Your task to perform on an android device: Go to Yahoo.com Image 0: 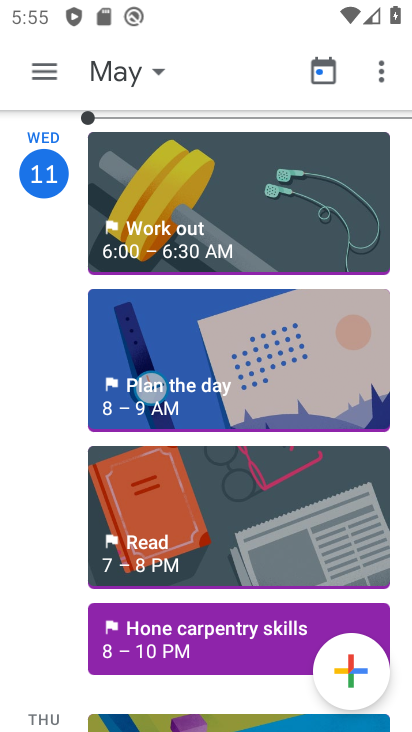
Step 0: press home button
Your task to perform on an android device: Go to Yahoo.com Image 1: 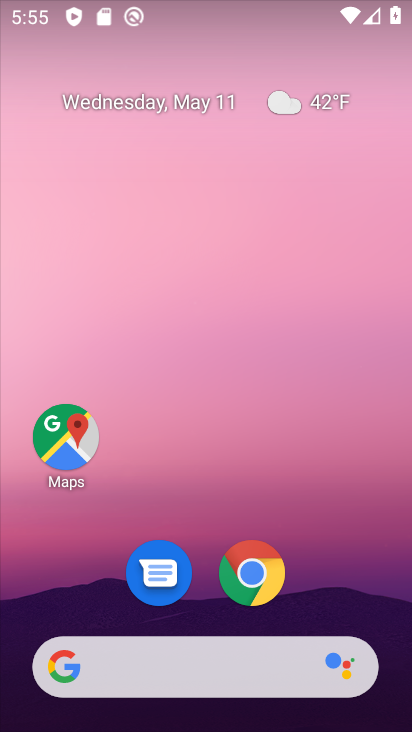
Step 1: click (238, 593)
Your task to perform on an android device: Go to Yahoo.com Image 2: 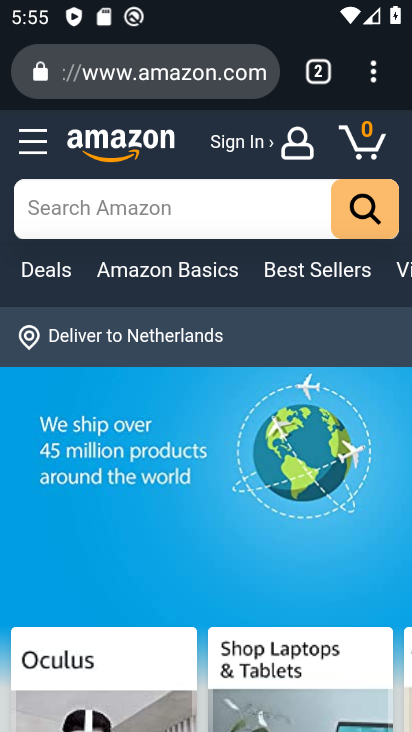
Step 2: press back button
Your task to perform on an android device: Go to Yahoo.com Image 3: 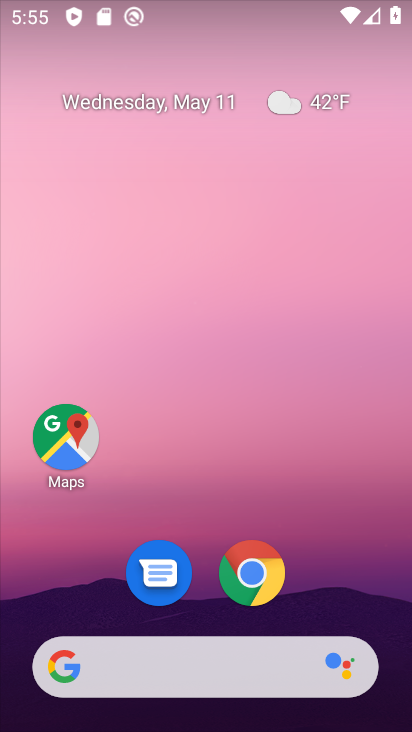
Step 3: click (242, 585)
Your task to perform on an android device: Go to Yahoo.com Image 4: 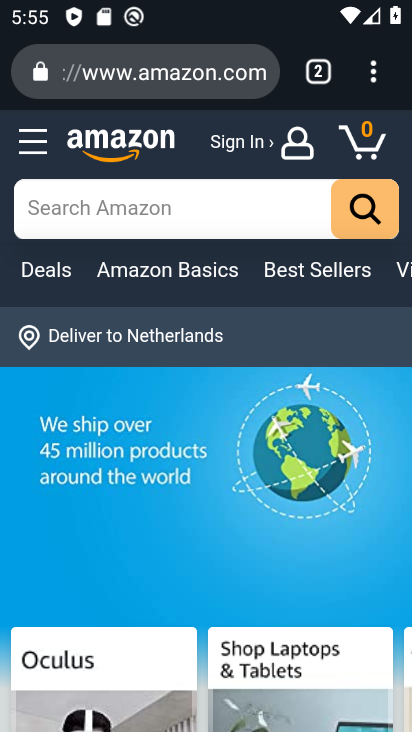
Step 4: click (320, 81)
Your task to perform on an android device: Go to Yahoo.com Image 5: 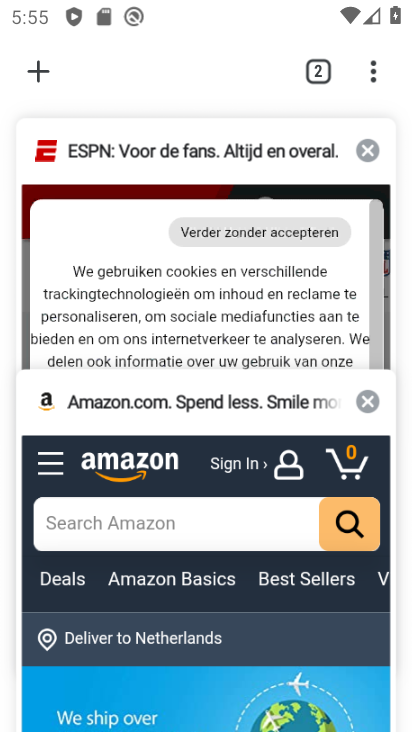
Step 5: click (368, 165)
Your task to perform on an android device: Go to Yahoo.com Image 6: 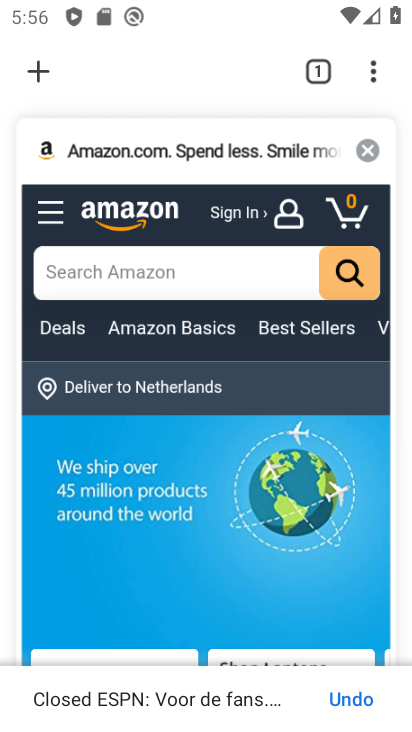
Step 6: click (367, 159)
Your task to perform on an android device: Go to Yahoo.com Image 7: 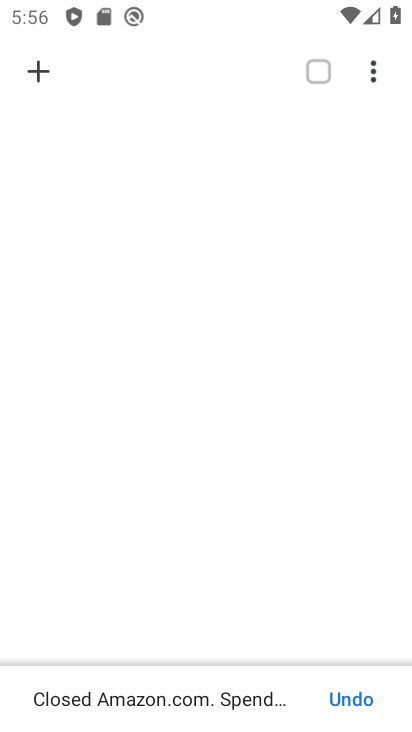
Step 7: click (32, 79)
Your task to perform on an android device: Go to Yahoo.com Image 8: 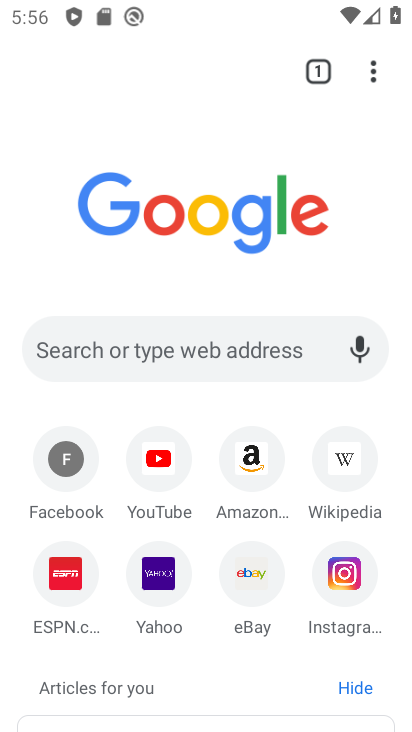
Step 8: click (165, 598)
Your task to perform on an android device: Go to Yahoo.com Image 9: 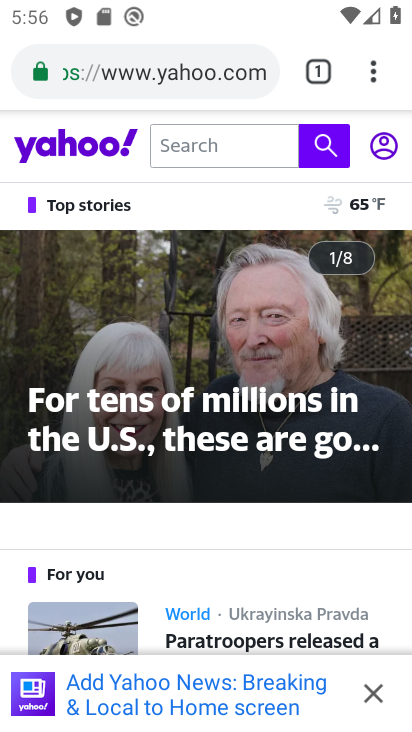
Step 9: task complete